Your task to perform on an android device: open app "Adobe Acrobat Reader: Edit PDF" Image 0: 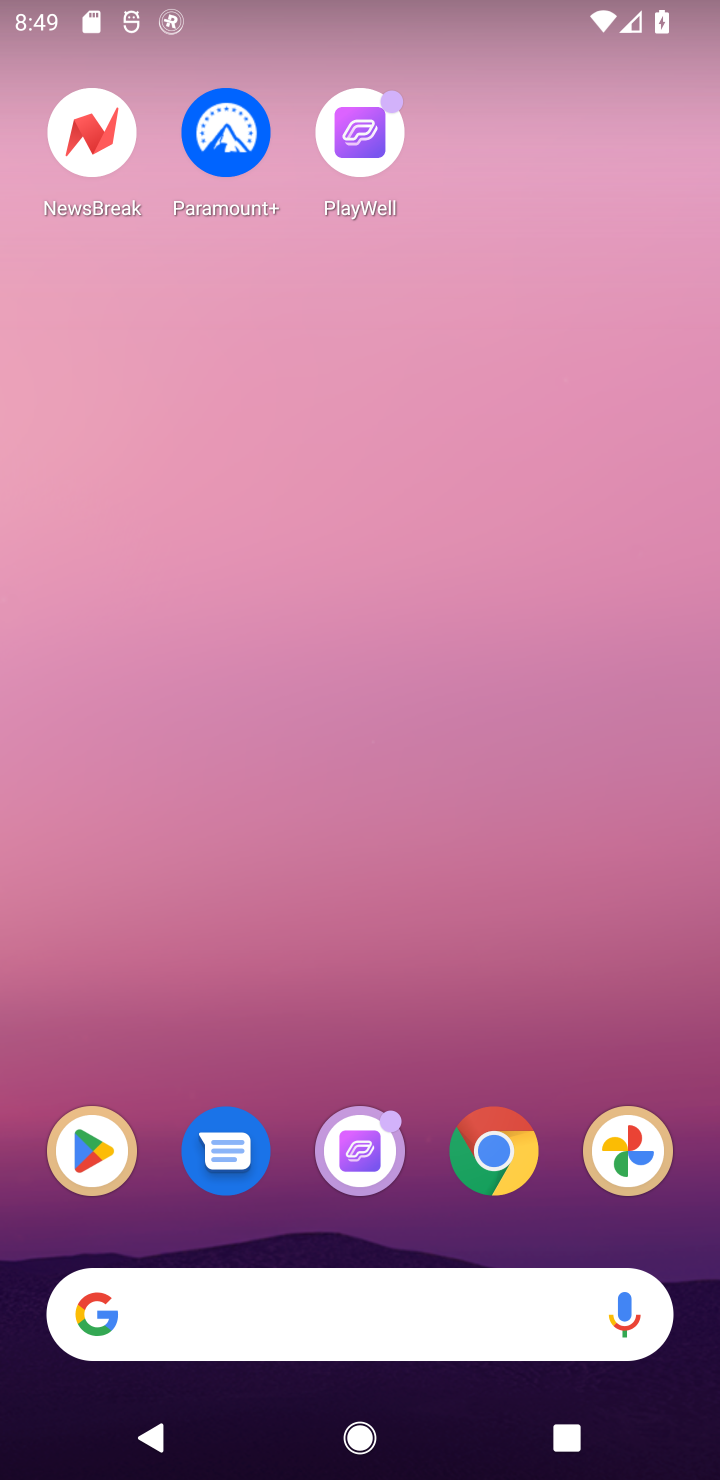
Step 0: click (114, 1169)
Your task to perform on an android device: open app "Adobe Acrobat Reader: Edit PDF" Image 1: 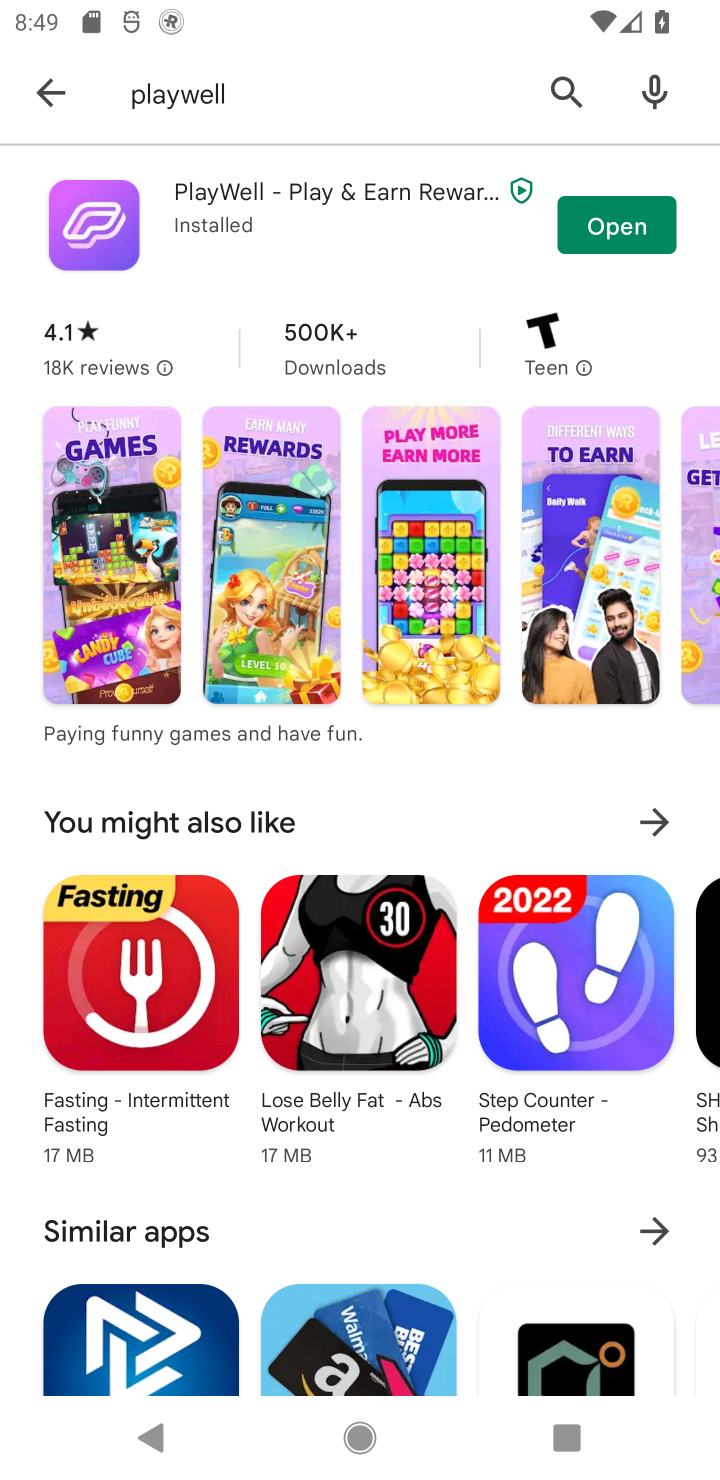
Step 1: click (568, 73)
Your task to perform on an android device: open app "Adobe Acrobat Reader: Edit PDF" Image 2: 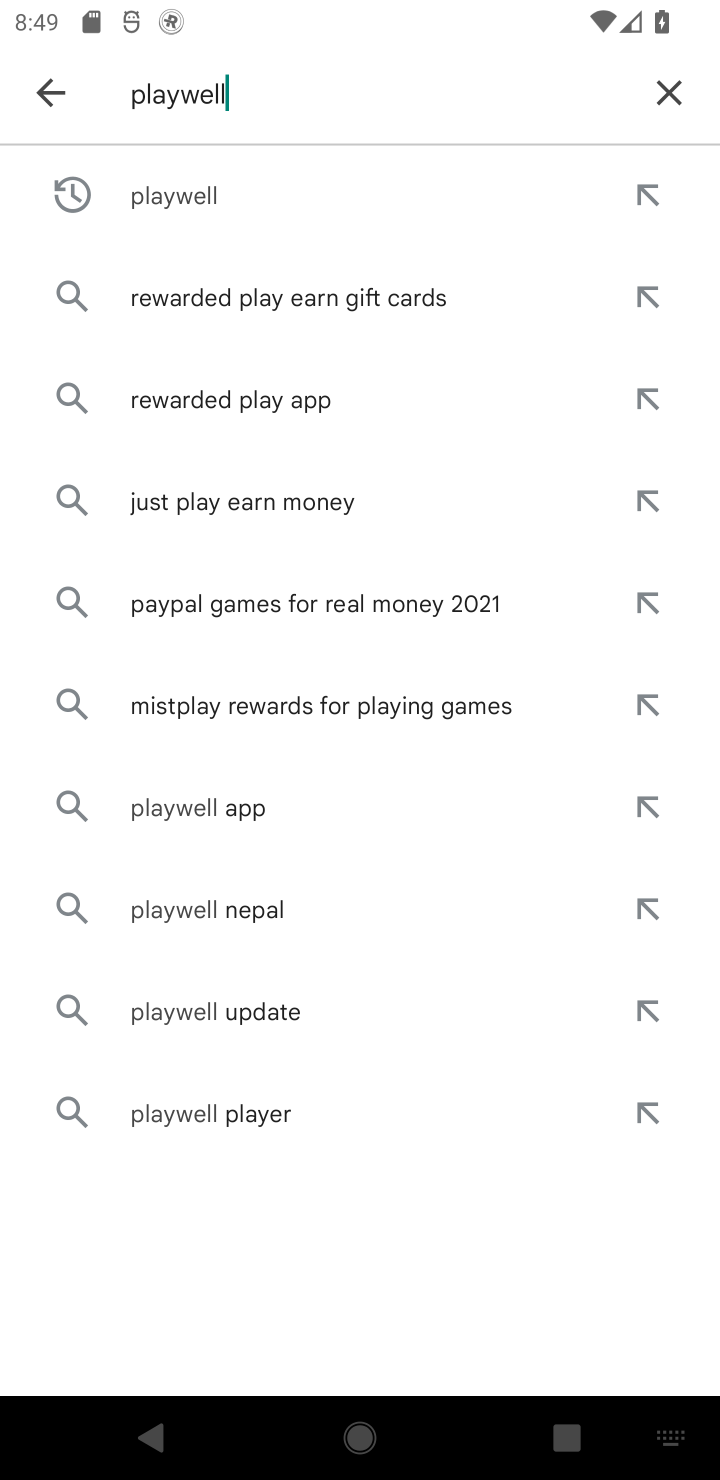
Step 2: click (663, 83)
Your task to perform on an android device: open app "Adobe Acrobat Reader: Edit PDF" Image 3: 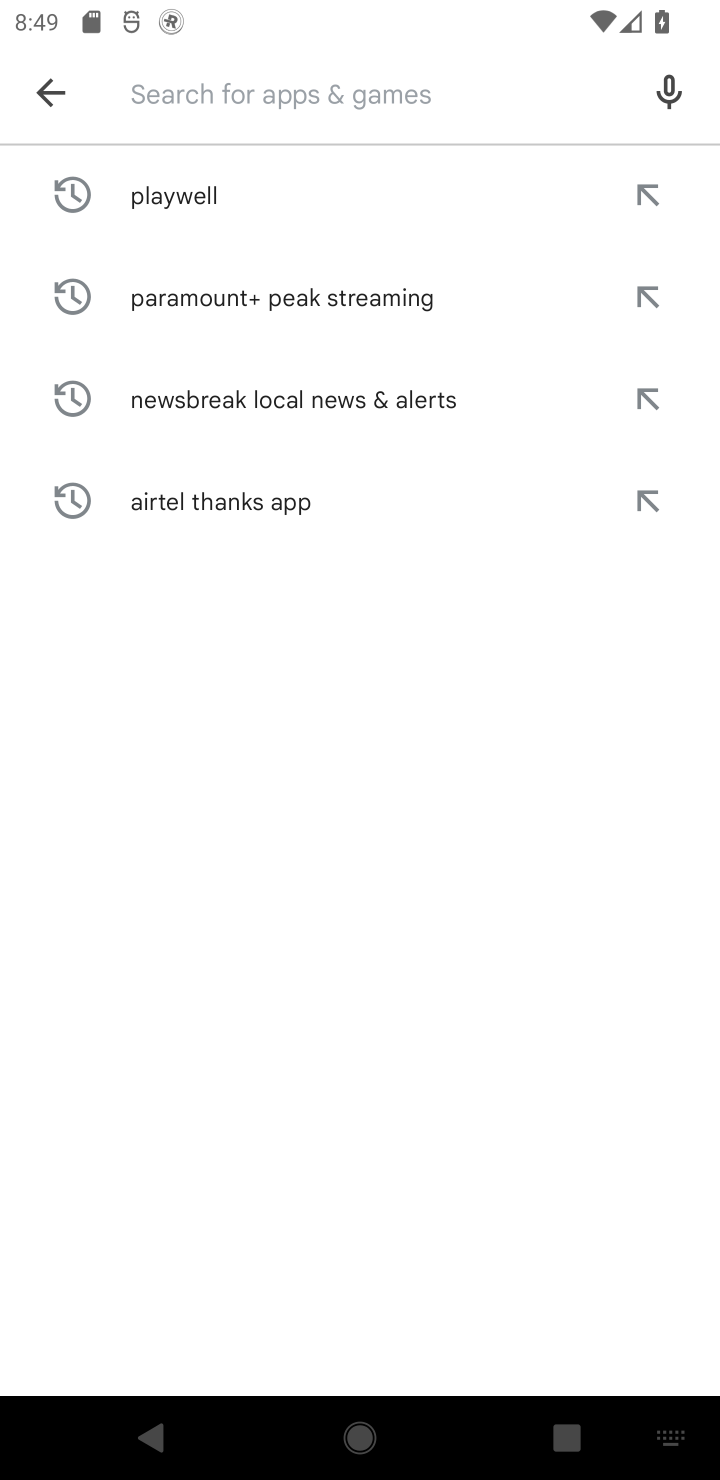
Step 3: type "Adobe Acrobat Reader: Edit PDF"
Your task to perform on an android device: open app "Adobe Acrobat Reader: Edit PDF" Image 4: 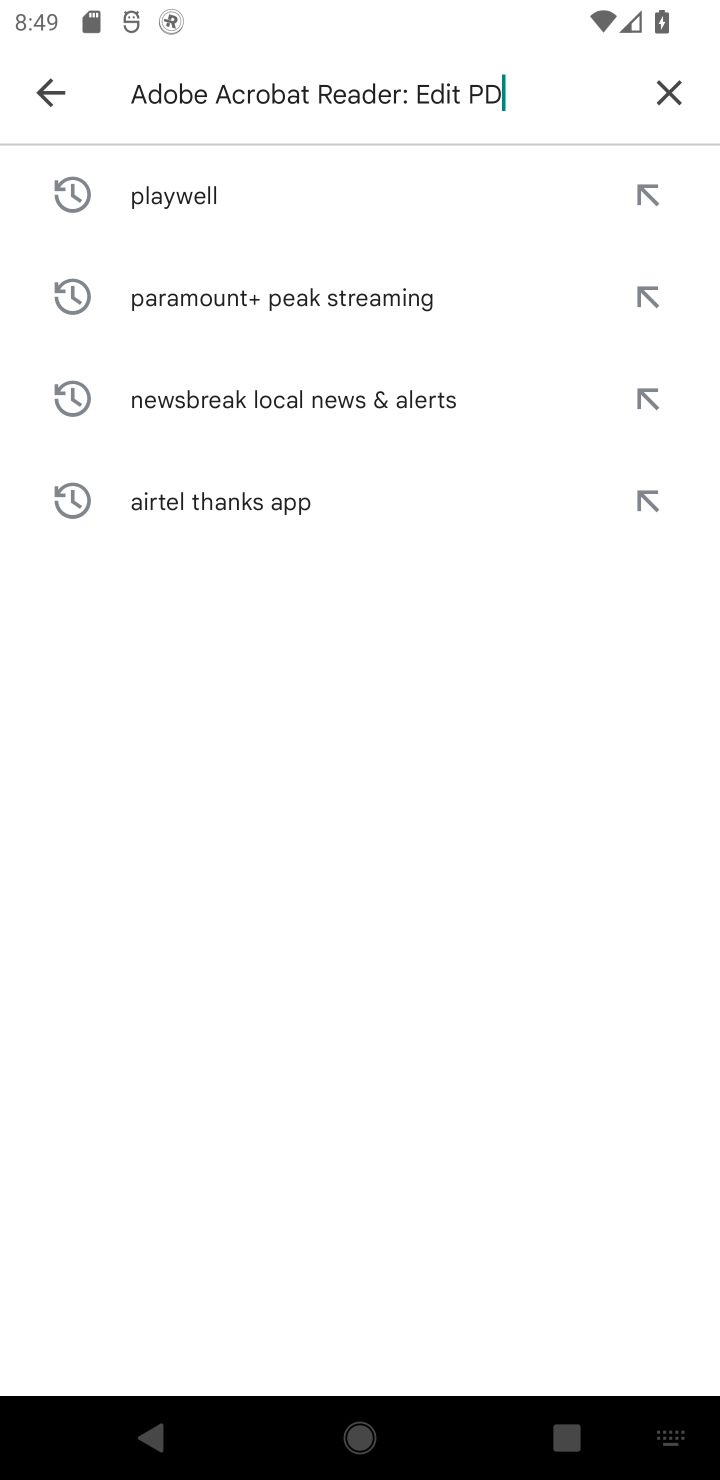
Step 4: type ""
Your task to perform on an android device: open app "Adobe Acrobat Reader: Edit PDF" Image 5: 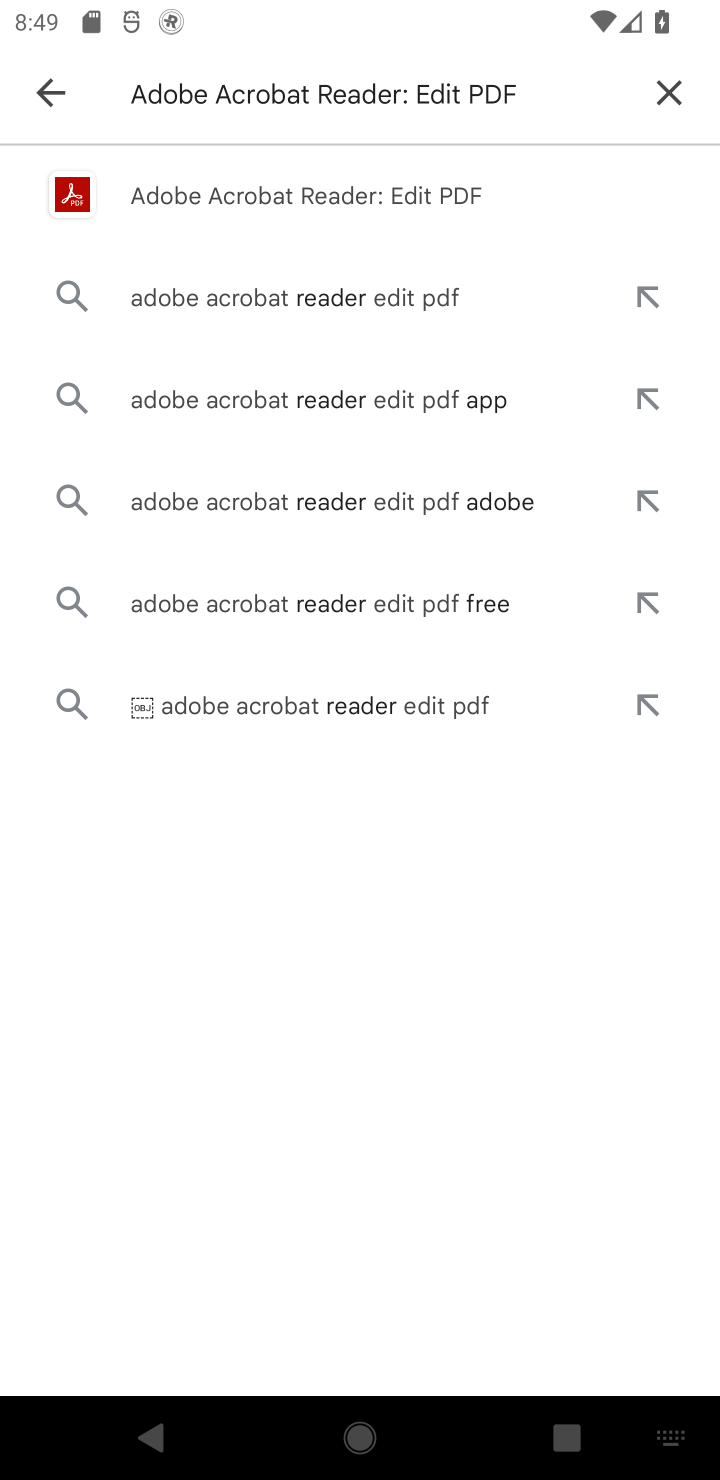
Step 5: click (375, 193)
Your task to perform on an android device: open app "Adobe Acrobat Reader: Edit PDF" Image 6: 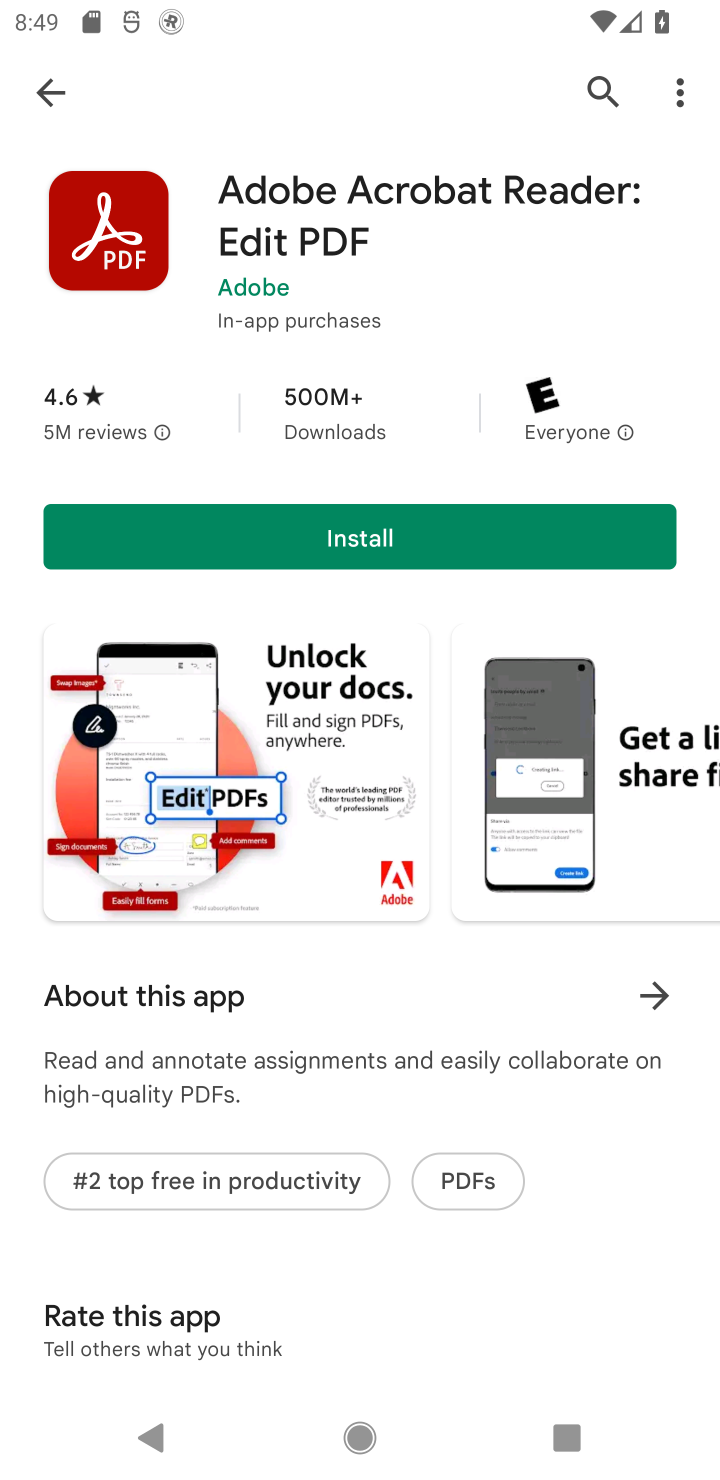
Step 6: task complete